Your task to perform on an android device: Search for the new Nike Air Max 270 on Nike.com Image 0: 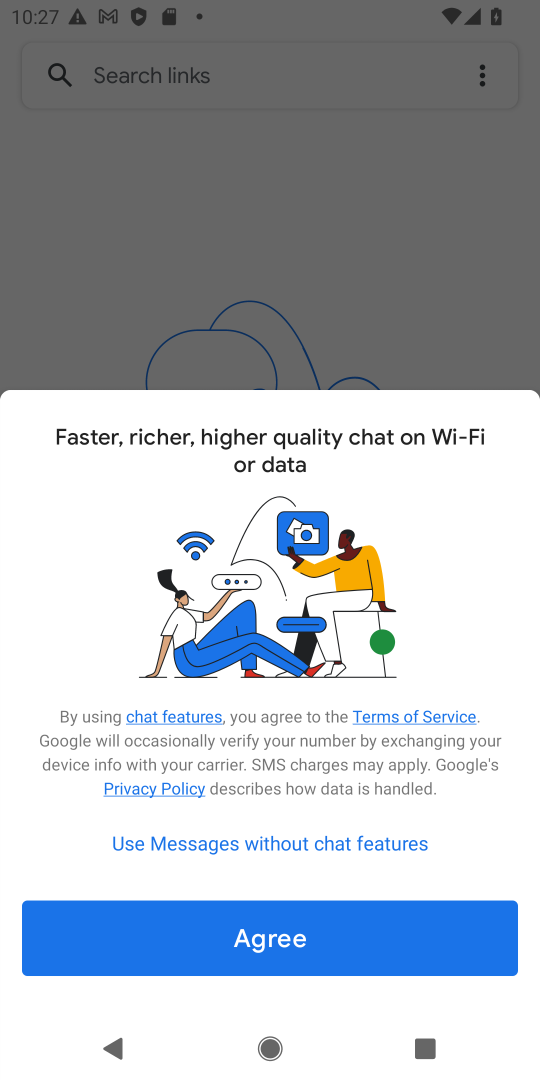
Step 0: press home button
Your task to perform on an android device: Search for the new Nike Air Max 270 on Nike.com Image 1: 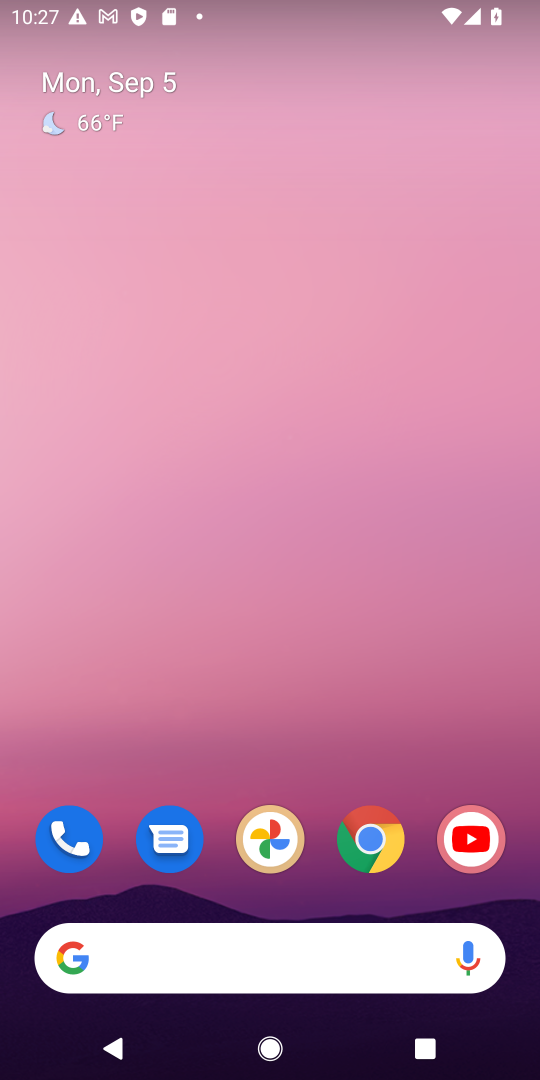
Step 1: drag from (220, 858) to (339, 241)
Your task to perform on an android device: Search for the new Nike Air Max 270 on Nike.com Image 2: 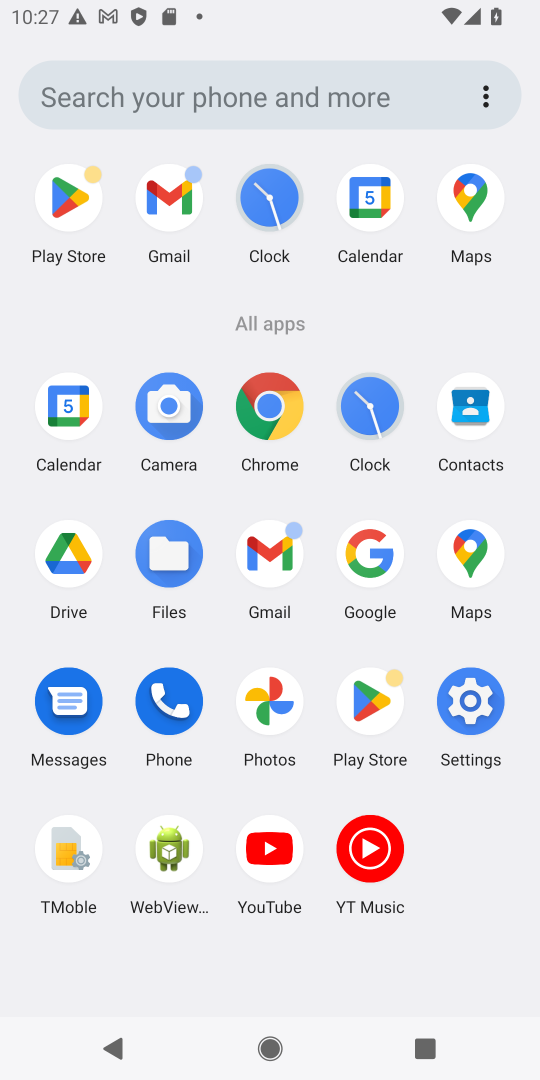
Step 2: click (359, 562)
Your task to perform on an android device: Search for the new Nike Air Max 270 on Nike.com Image 3: 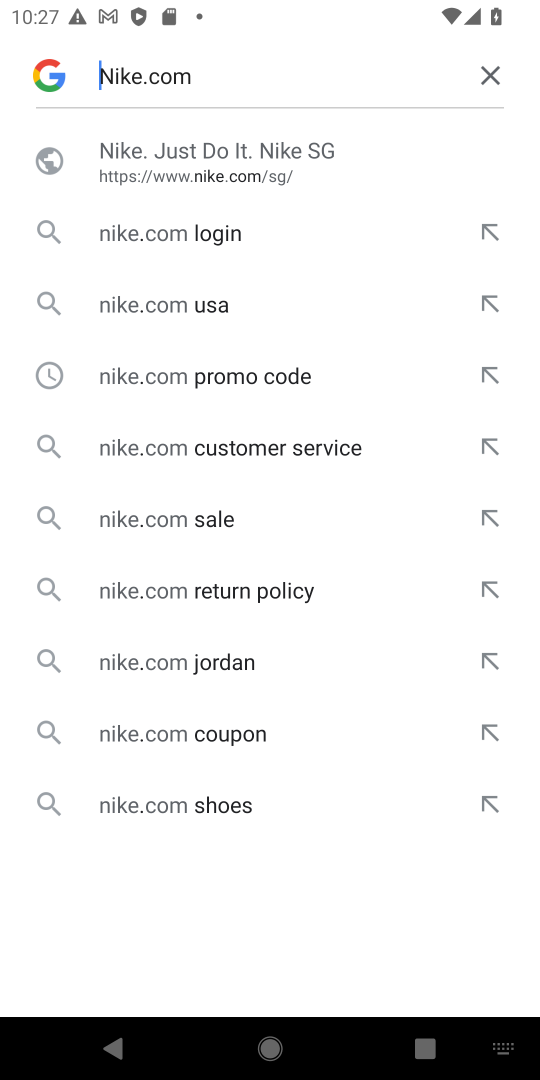
Step 3: click (194, 159)
Your task to perform on an android device: Search for the new Nike Air Max 270 on Nike.com Image 4: 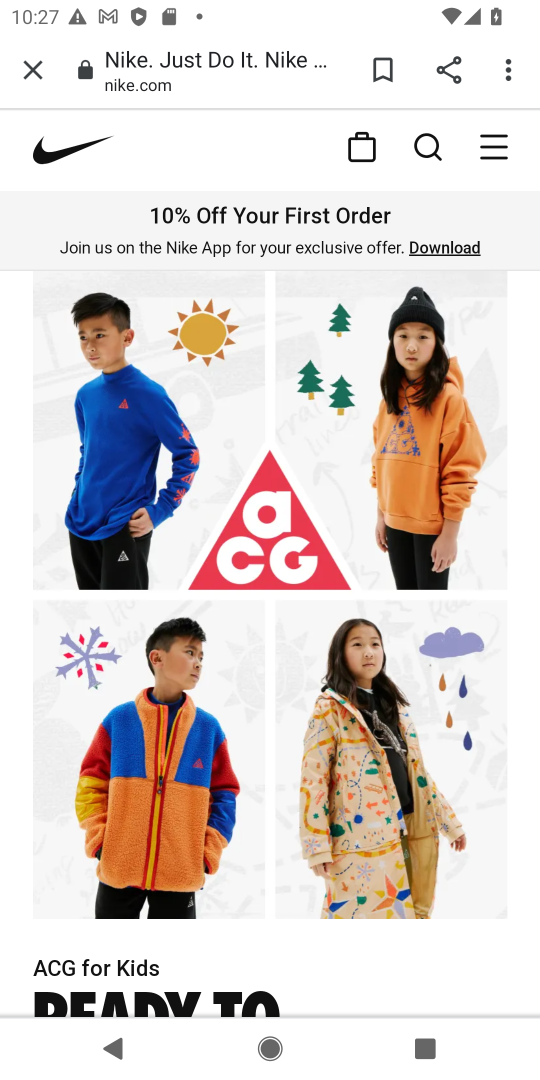
Step 4: click (439, 136)
Your task to perform on an android device: Search for the new Nike Air Max 270 on Nike.com Image 5: 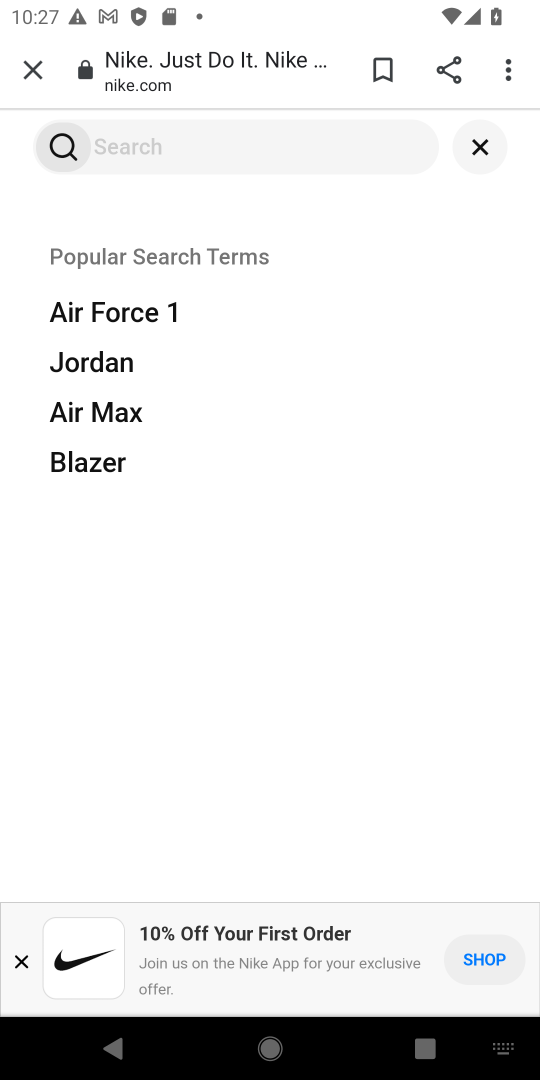
Step 5: type "Nike Air Max 270"
Your task to perform on an android device: Search for the new Nike Air Max 270 on Nike.com Image 6: 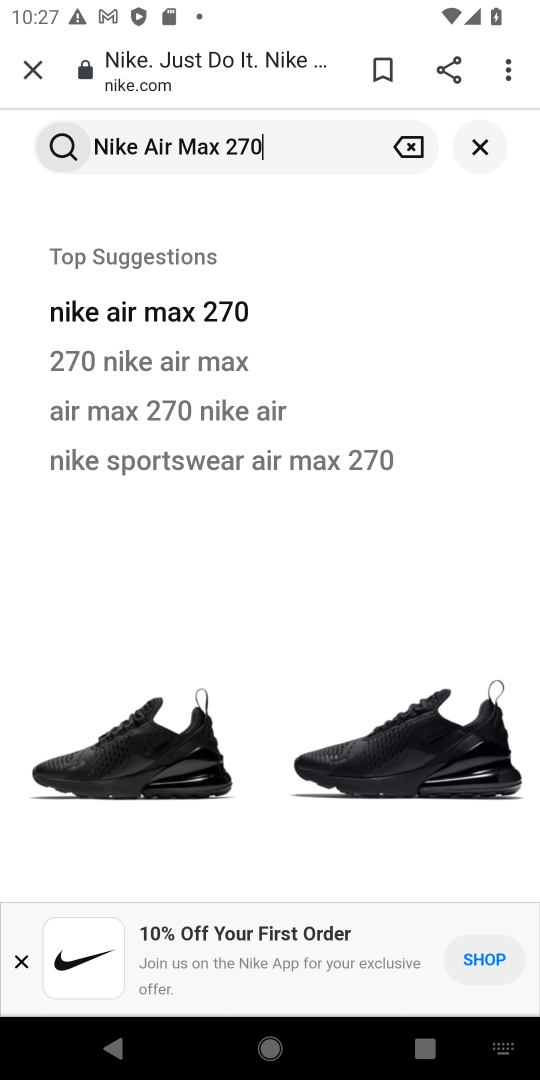
Step 6: click (93, 316)
Your task to perform on an android device: Search for the new Nike Air Max 270 on Nike.com Image 7: 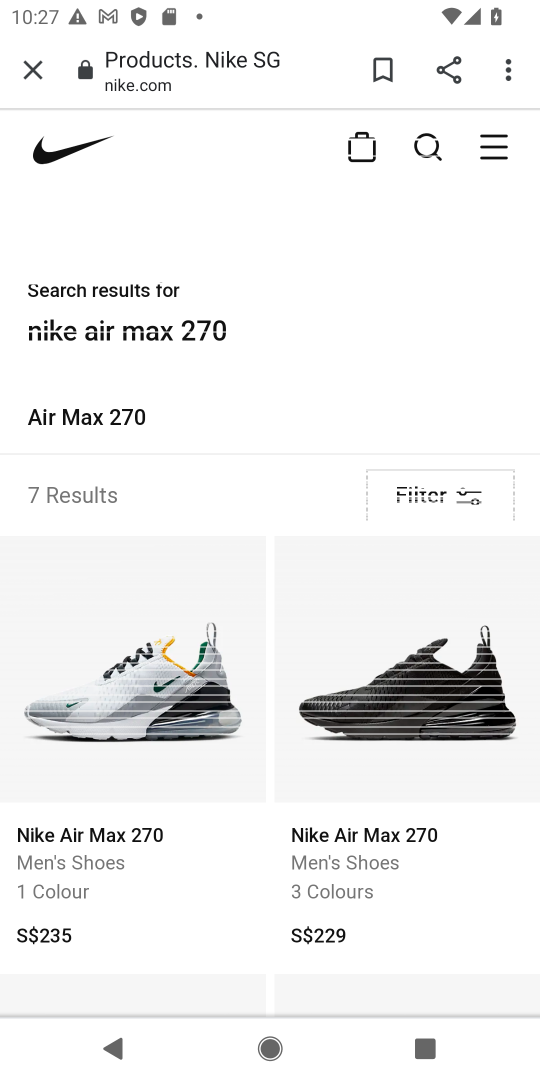
Step 7: drag from (335, 788) to (351, 457)
Your task to perform on an android device: Search for the new Nike Air Max 270 on Nike.com Image 8: 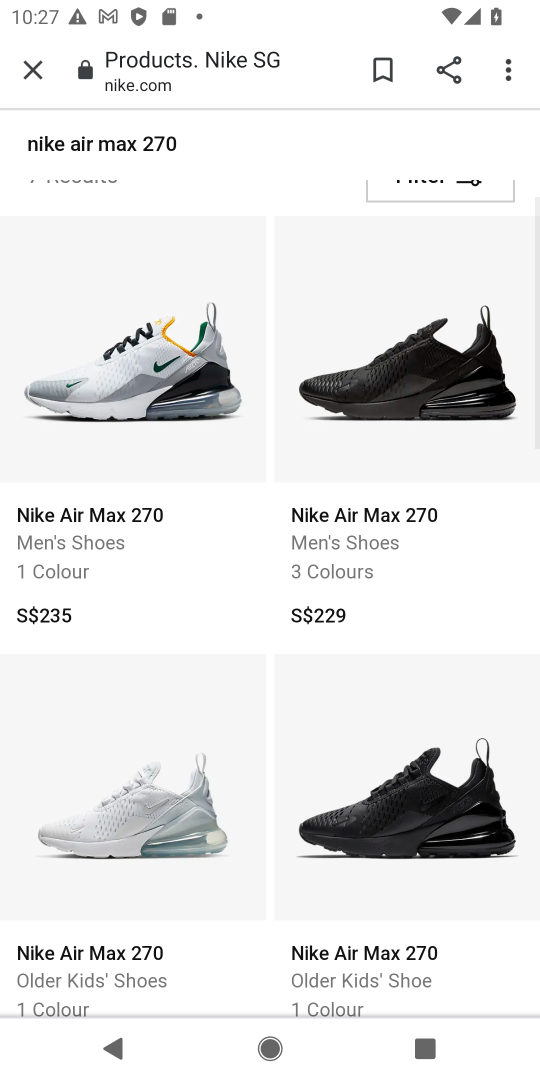
Step 8: click (391, 525)
Your task to perform on an android device: Search for the new Nike Air Max 270 on Nike.com Image 9: 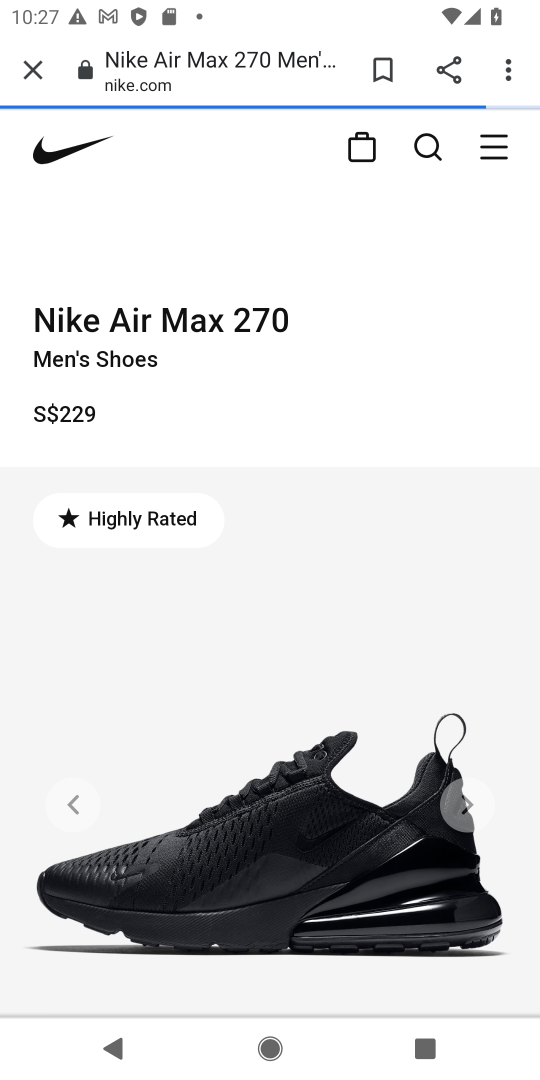
Step 9: task complete